Your task to perform on an android device: delete browsing data in the chrome app Image 0: 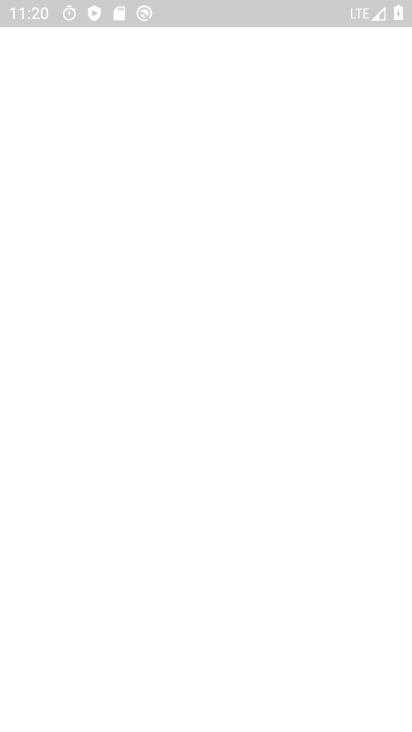
Step 0: click (146, 607)
Your task to perform on an android device: delete browsing data in the chrome app Image 1: 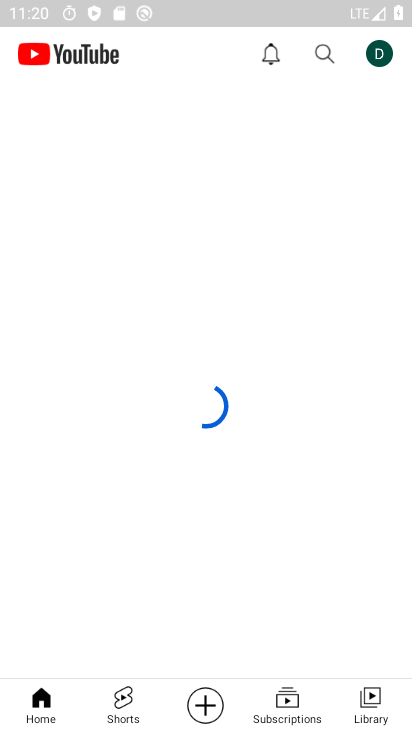
Step 1: press home button
Your task to perform on an android device: delete browsing data in the chrome app Image 2: 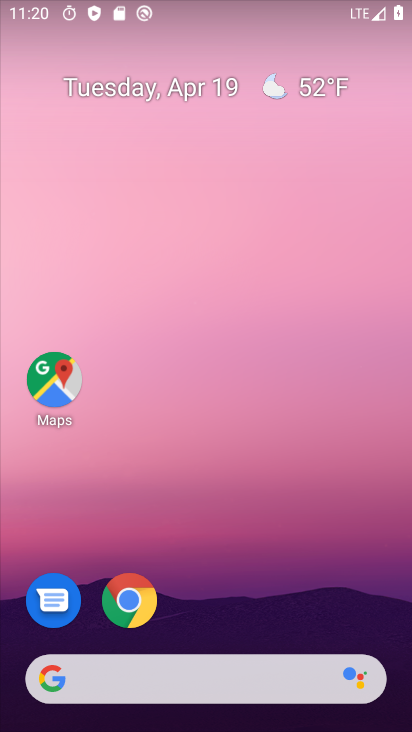
Step 2: click (121, 598)
Your task to perform on an android device: delete browsing data in the chrome app Image 3: 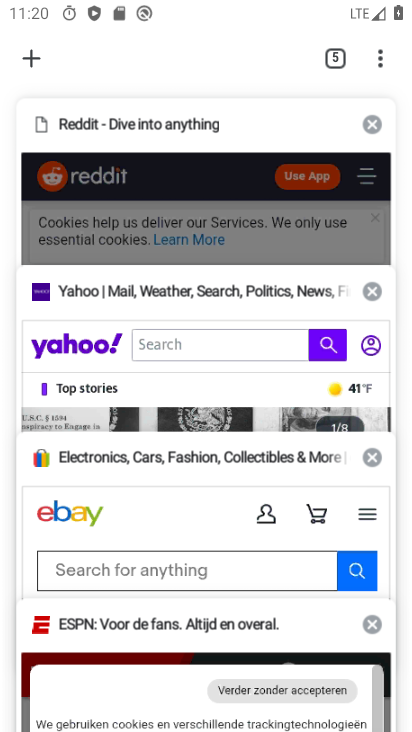
Step 3: click (375, 64)
Your task to perform on an android device: delete browsing data in the chrome app Image 4: 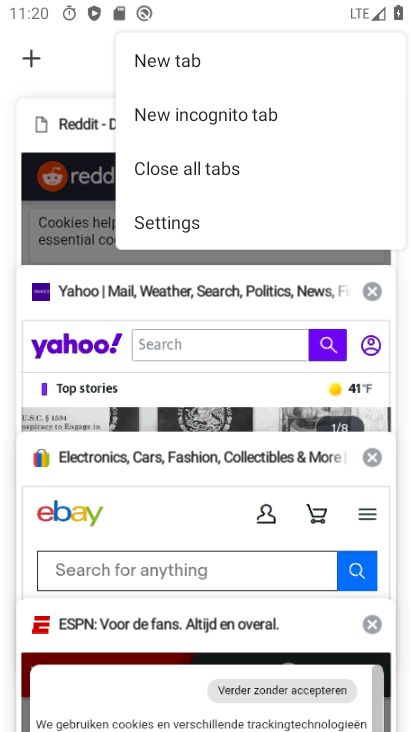
Step 4: click (168, 233)
Your task to perform on an android device: delete browsing data in the chrome app Image 5: 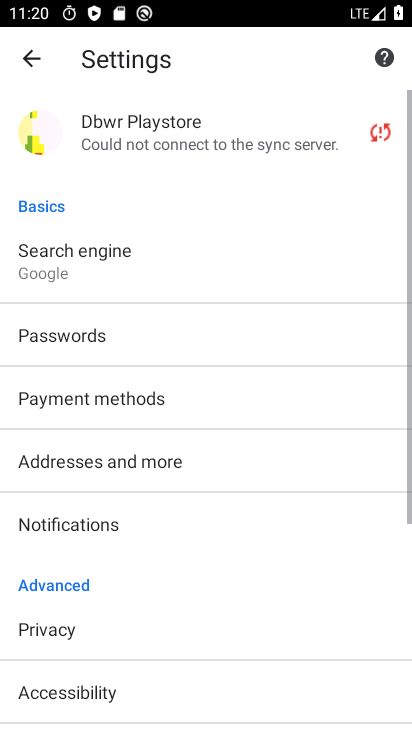
Step 5: drag from (164, 540) to (129, 211)
Your task to perform on an android device: delete browsing data in the chrome app Image 6: 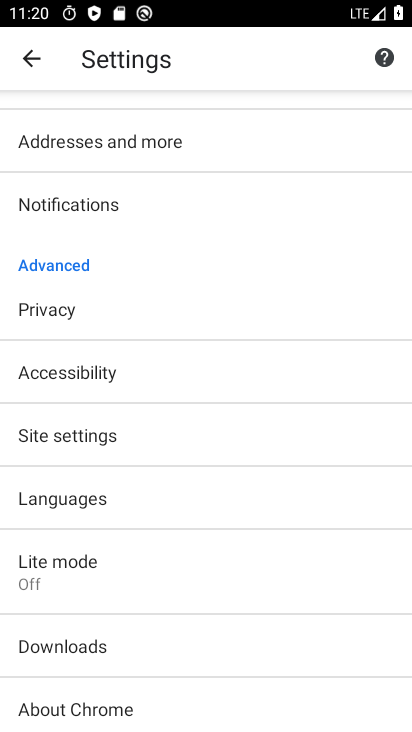
Step 6: click (55, 308)
Your task to perform on an android device: delete browsing data in the chrome app Image 7: 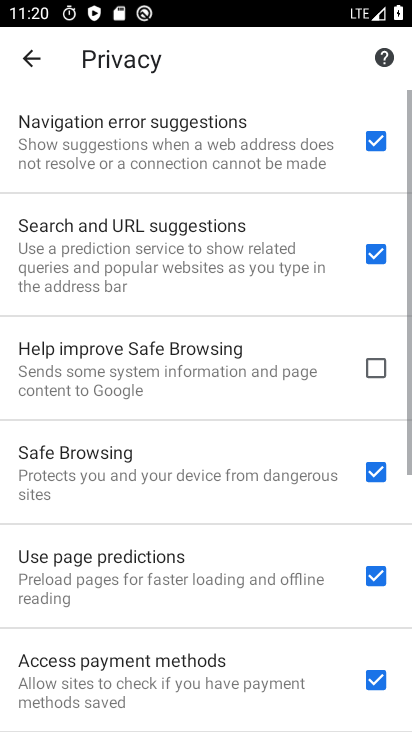
Step 7: drag from (142, 597) to (113, 110)
Your task to perform on an android device: delete browsing data in the chrome app Image 8: 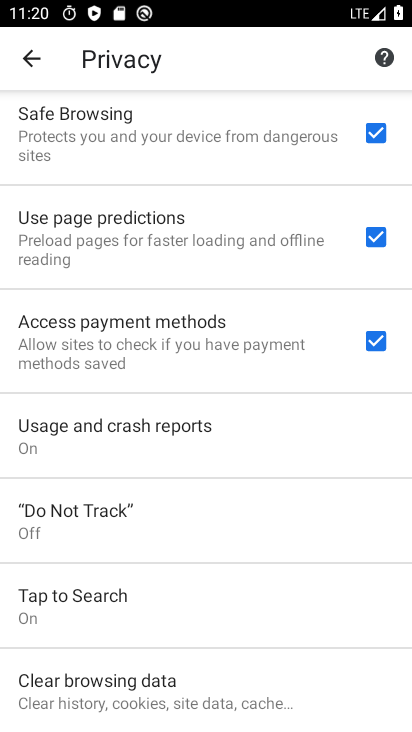
Step 8: click (191, 679)
Your task to perform on an android device: delete browsing data in the chrome app Image 9: 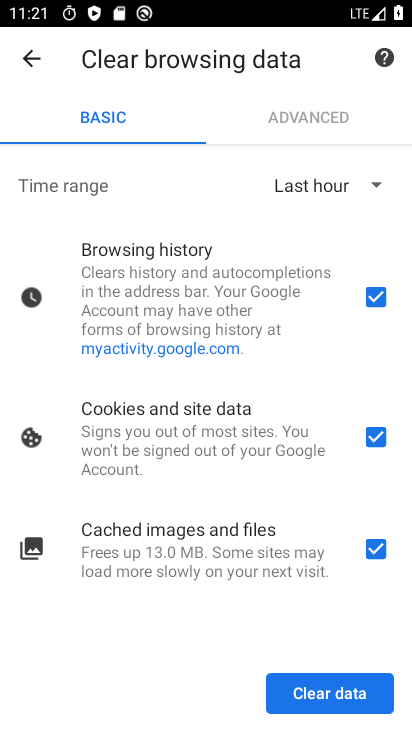
Step 9: click (351, 700)
Your task to perform on an android device: delete browsing data in the chrome app Image 10: 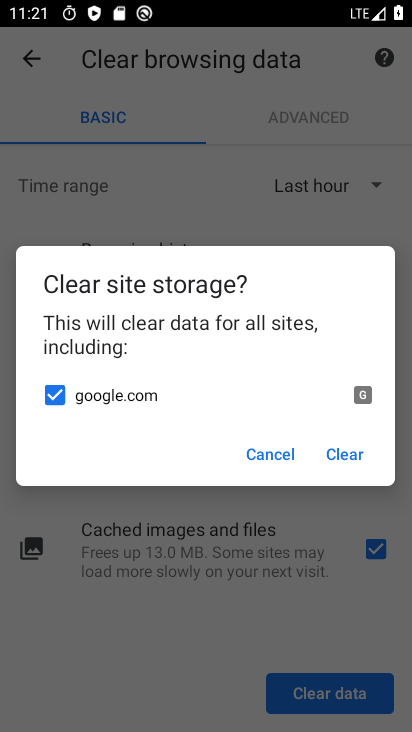
Step 10: click (341, 456)
Your task to perform on an android device: delete browsing data in the chrome app Image 11: 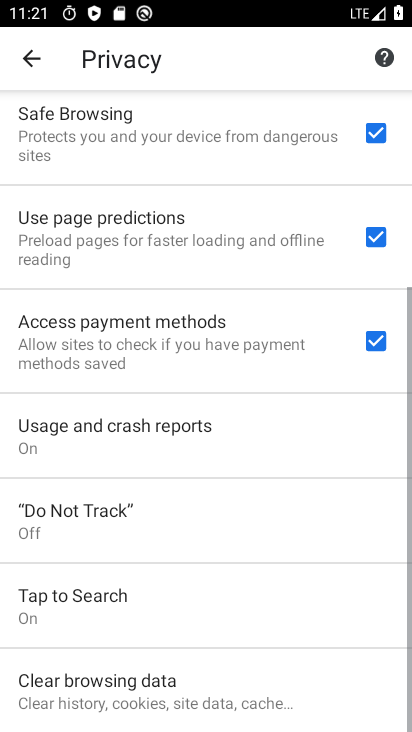
Step 11: task complete